Your task to perform on an android device: turn off notifications settings in the gmail app Image 0: 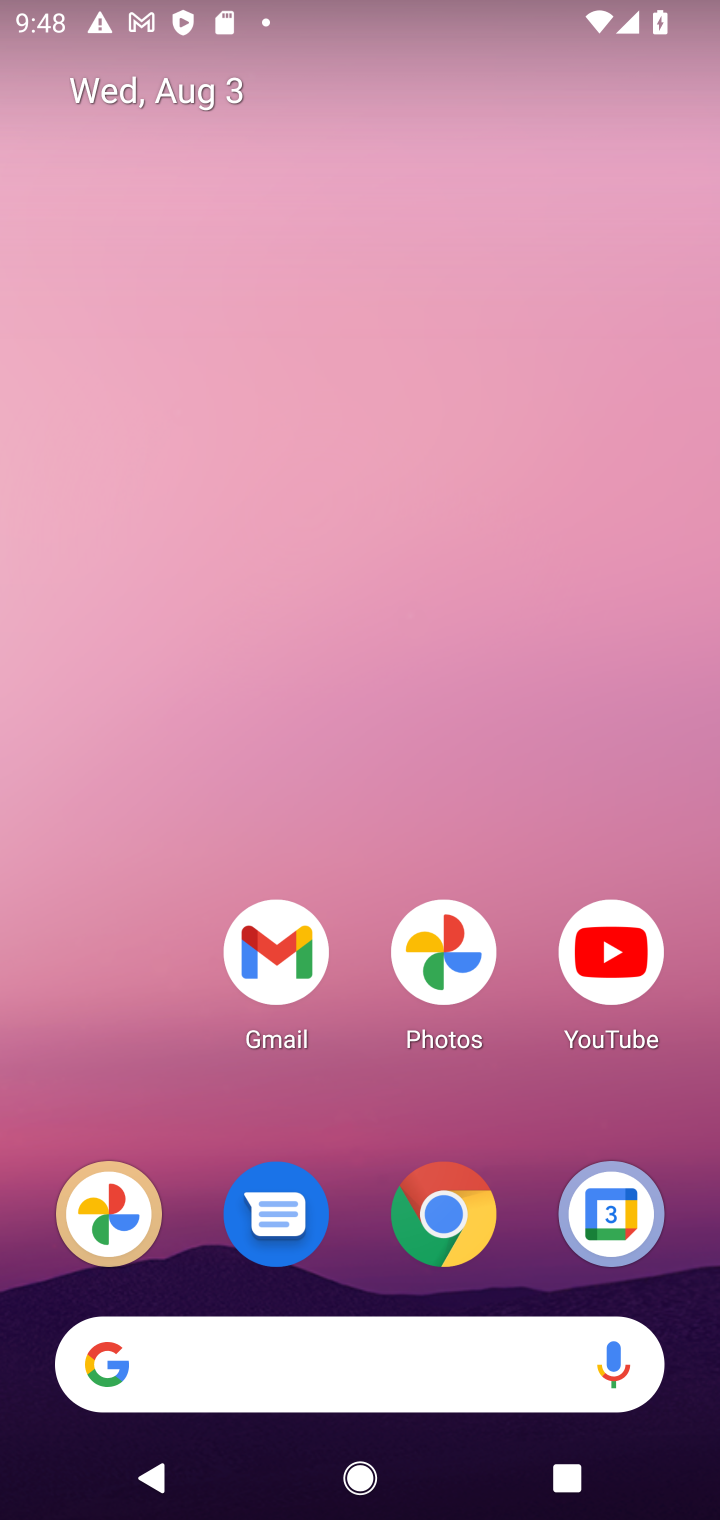
Step 0: press home button
Your task to perform on an android device: turn off notifications settings in the gmail app Image 1: 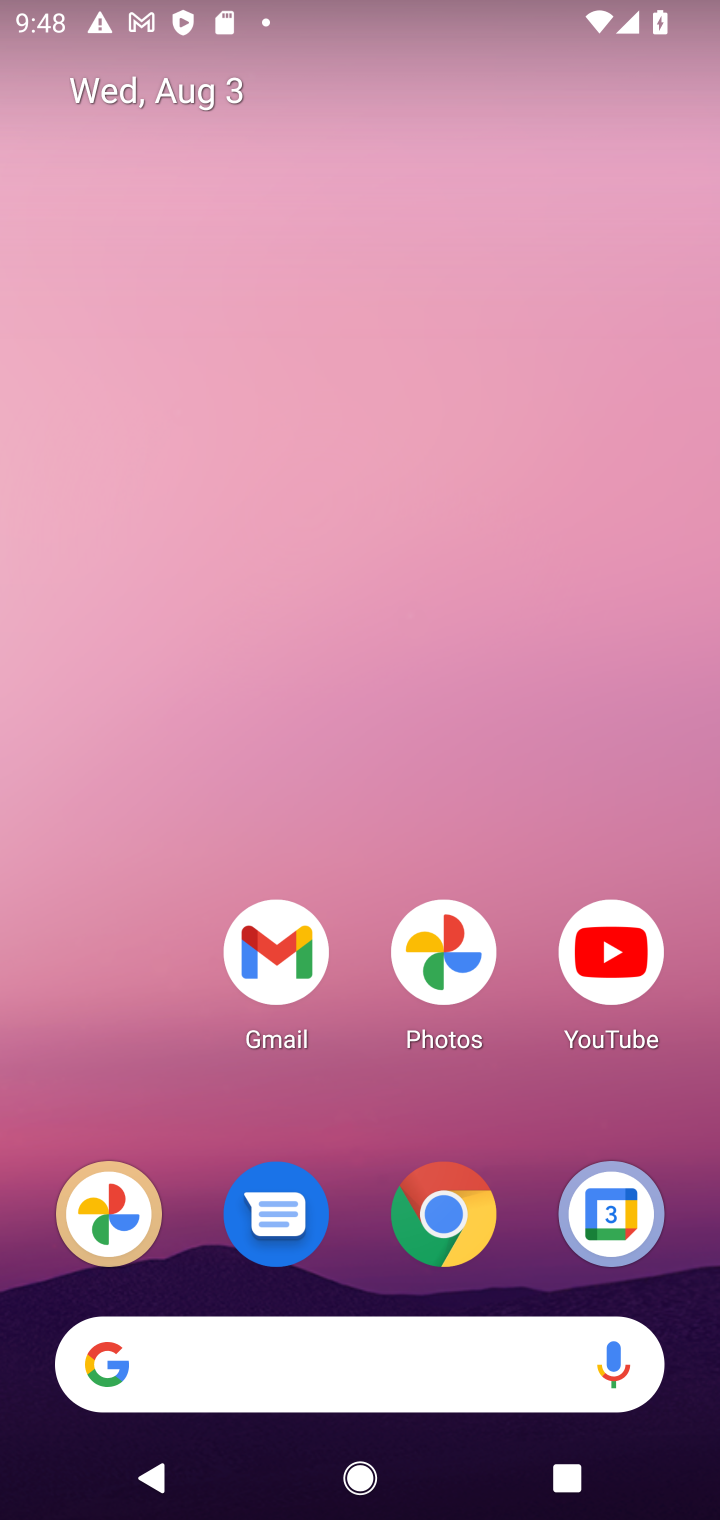
Step 1: drag from (295, 1228) to (337, 84)
Your task to perform on an android device: turn off notifications settings in the gmail app Image 2: 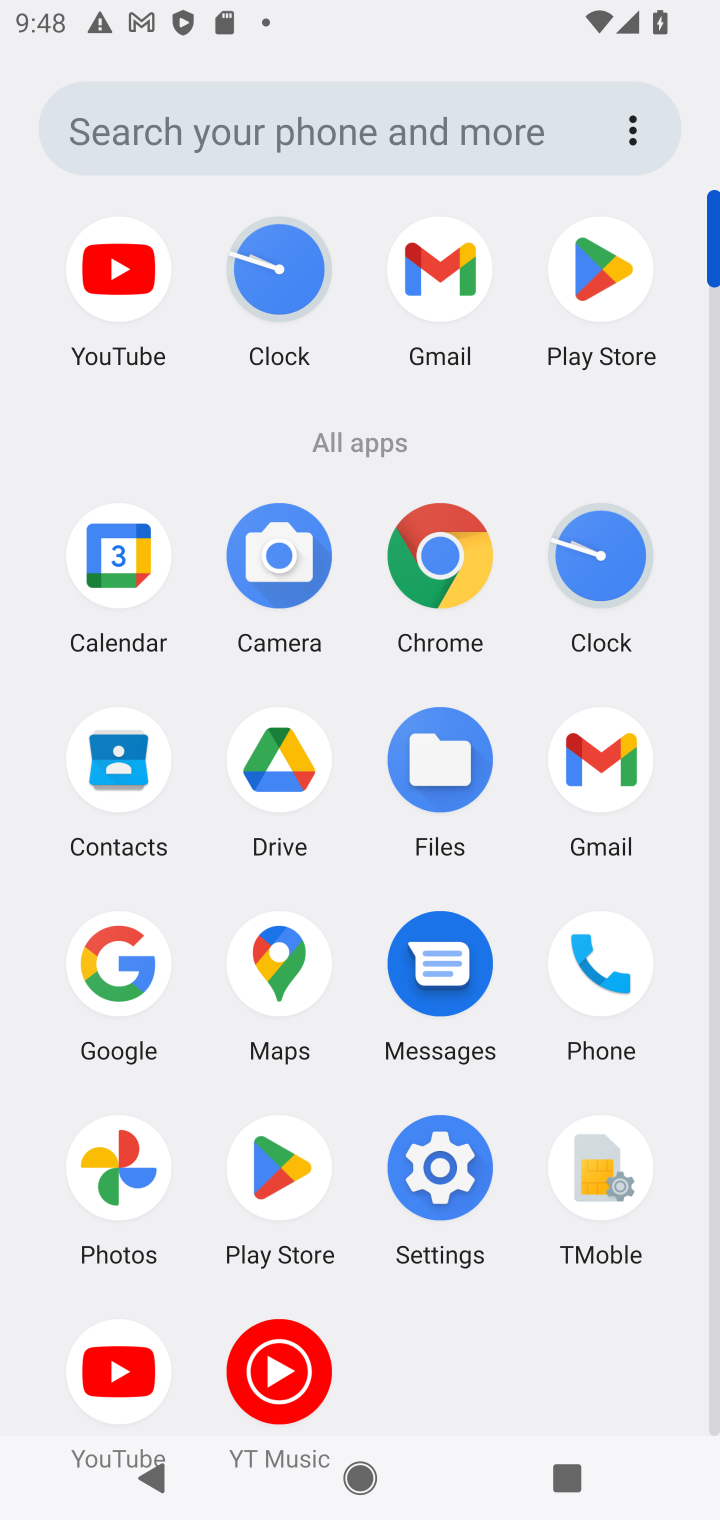
Step 2: click (605, 751)
Your task to perform on an android device: turn off notifications settings in the gmail app Image 3: 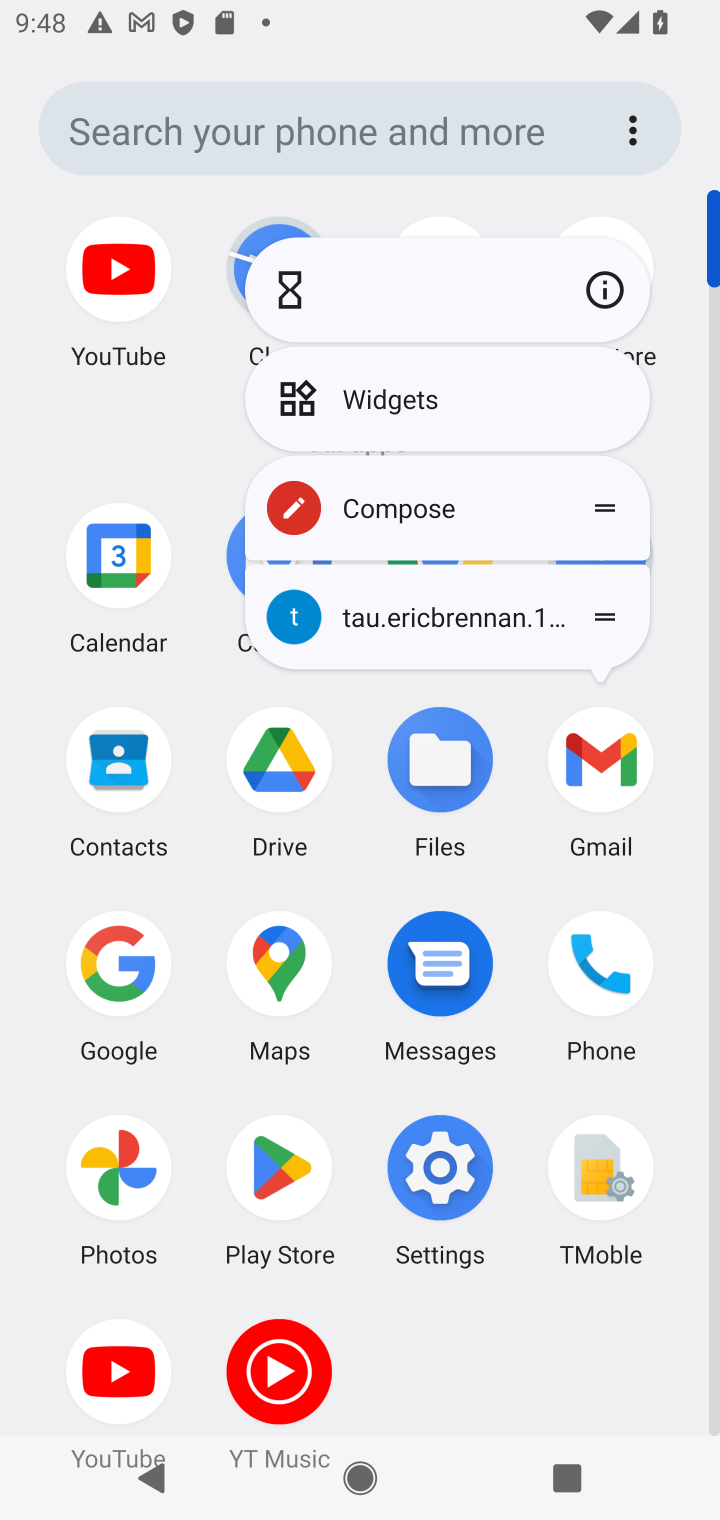
Step 3: click (583, 297)
Your task to perform on an android device: turn off notifications settings in the gmail app Image 4: 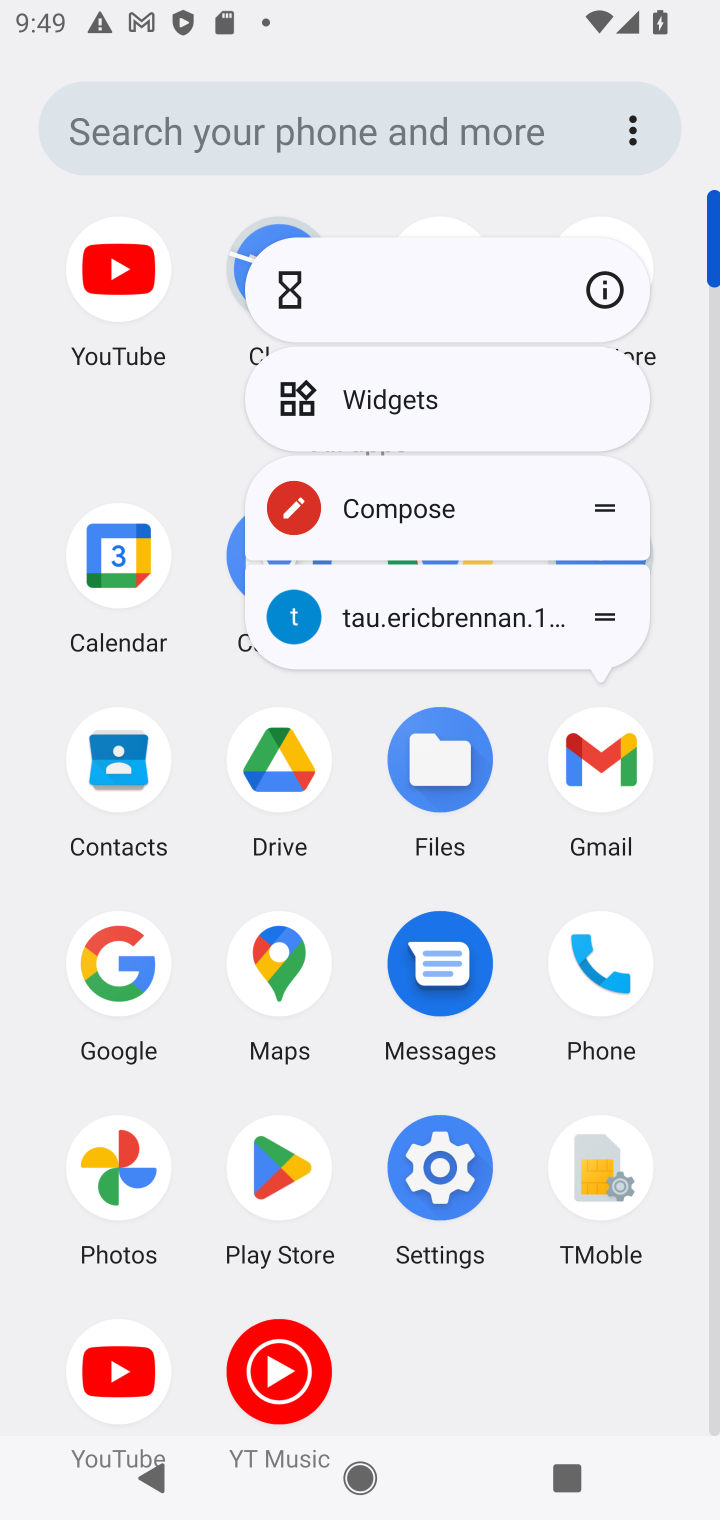
Step 4: click (583, 297)
Your task to perform on an android device: turn off notifications settings in the gmail app Image 5: 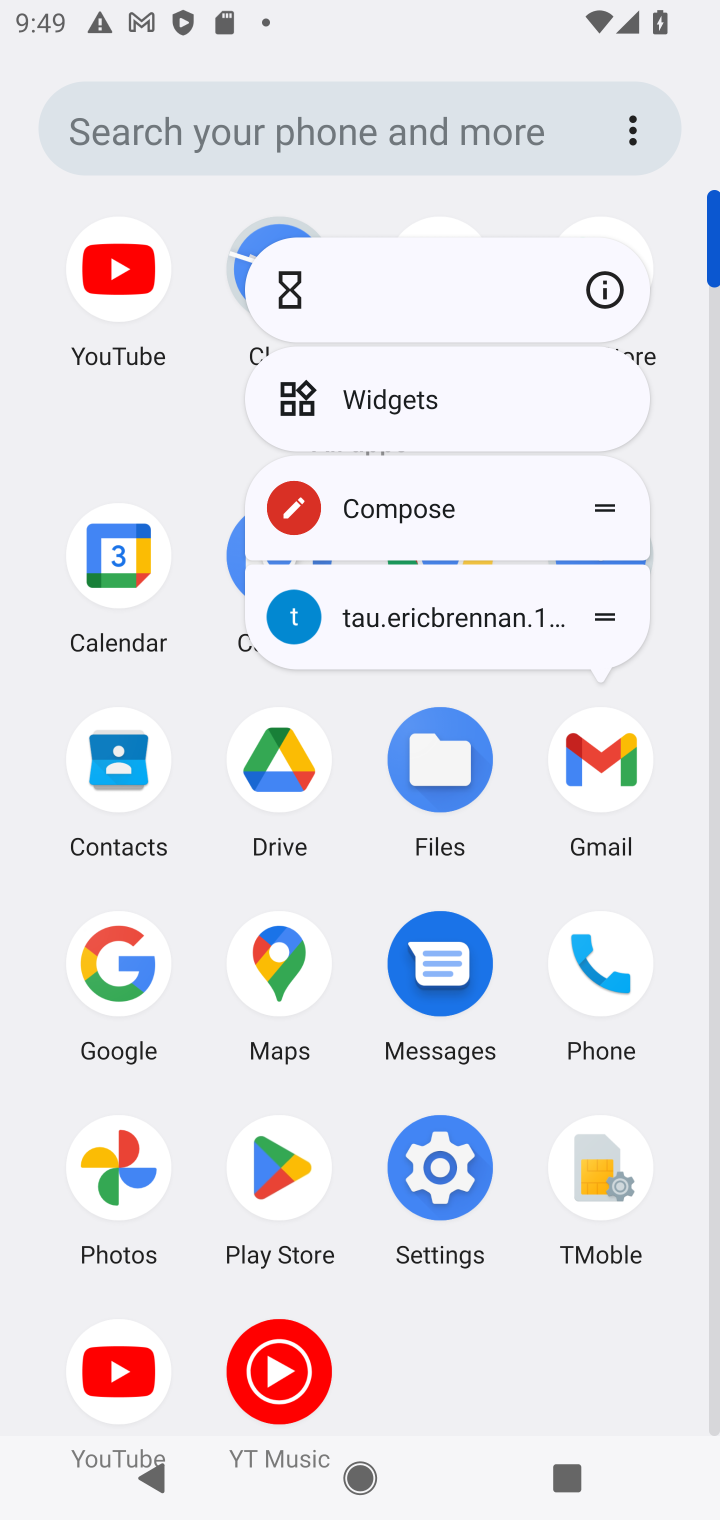
Step 5: click (583, 297)
Your task to perform on an android device: turn off notifications settings in the gmail app Image 6: 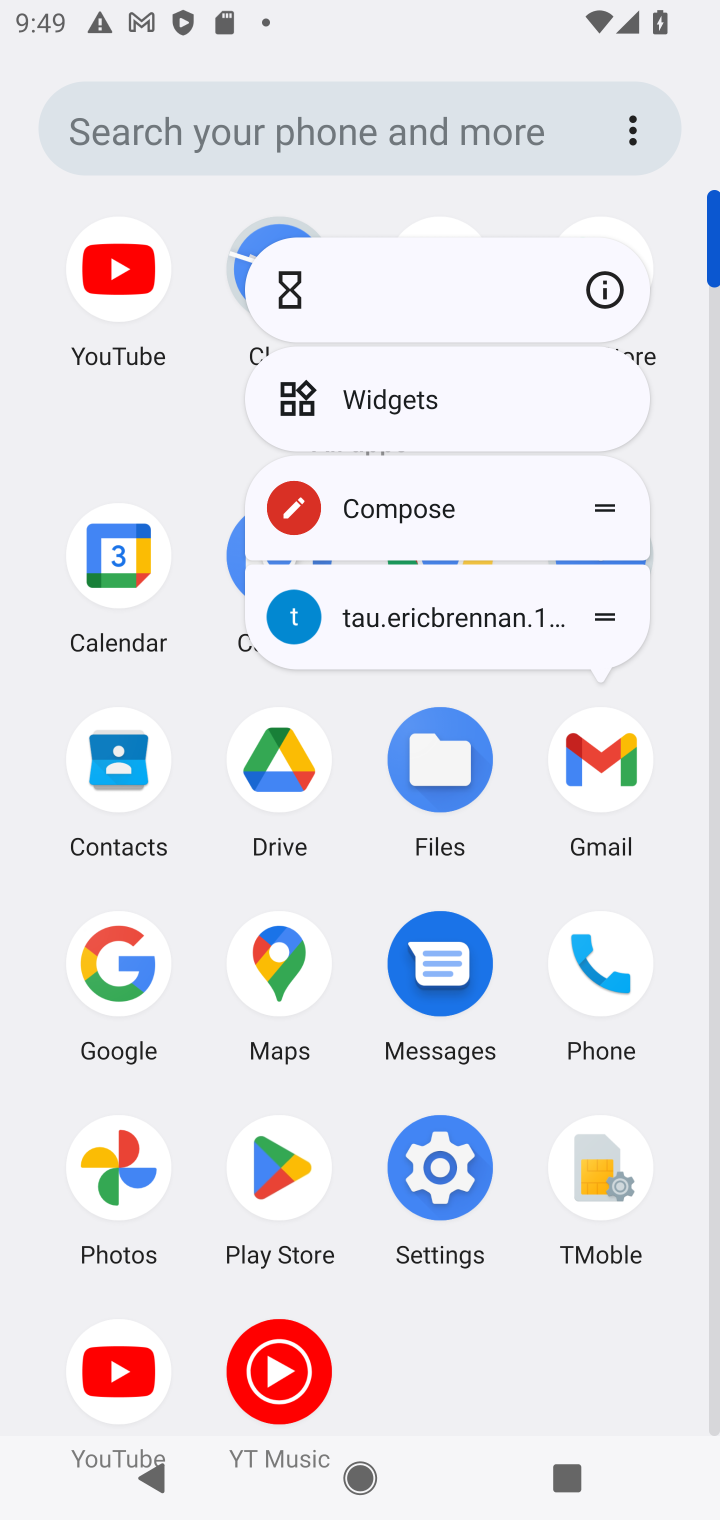
Step 6: click (653, 762)
Your task to perform on an android device: turn off notifications settings in the gmail app Image 7: 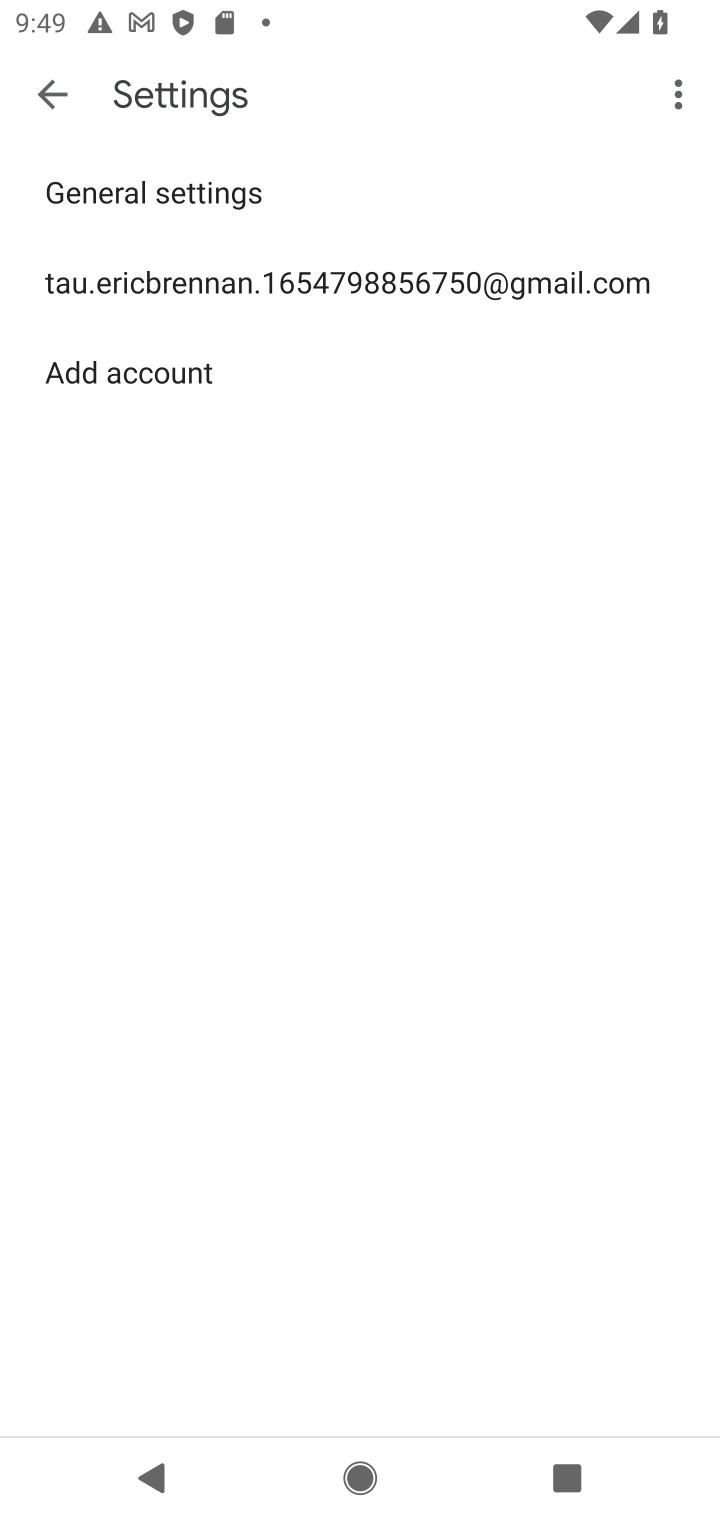
Step 7: click (602, 766)
Your task to perform on an android device: turn off notifications settings in the gmail app Image 8: 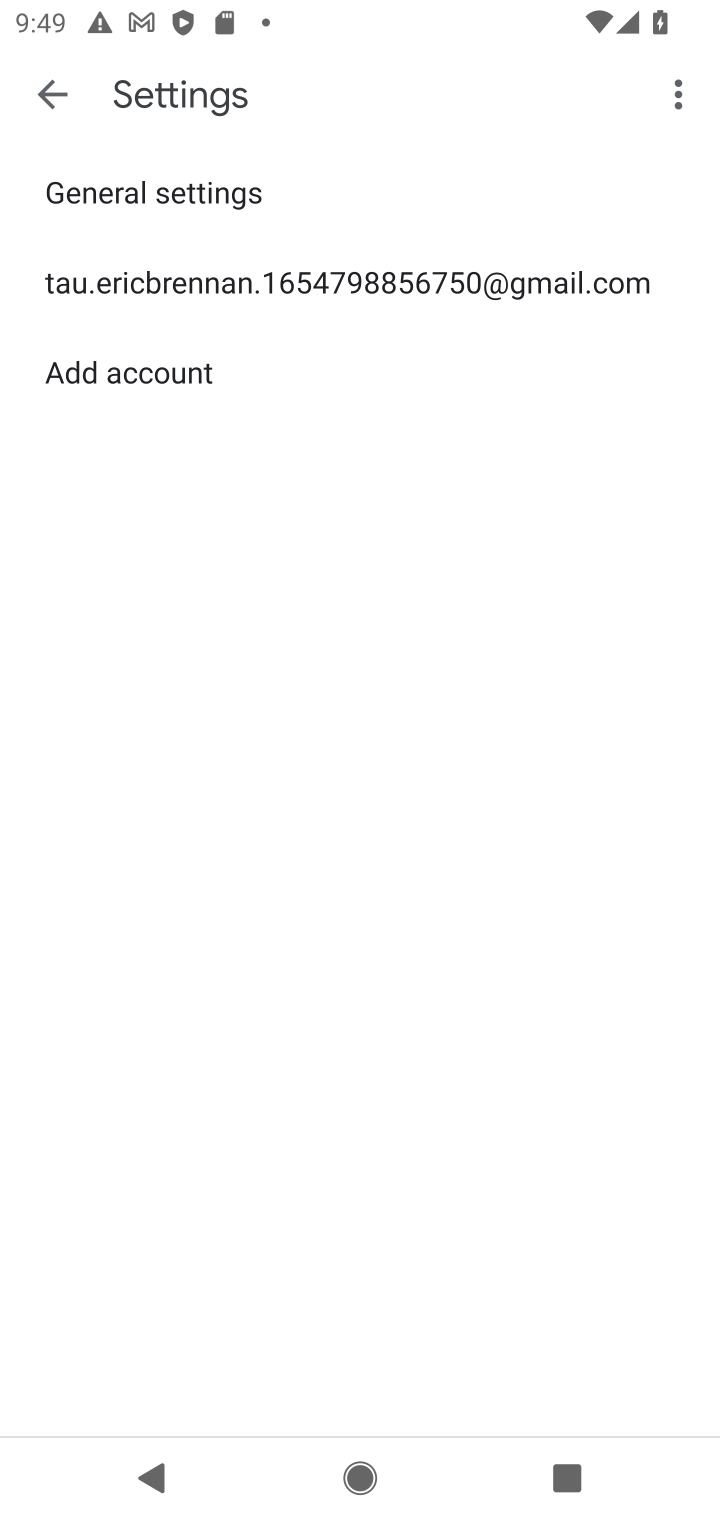
Step 8: press home button
Your task to perform on an android device: turn off notifications settings in the gmail app Image 9: 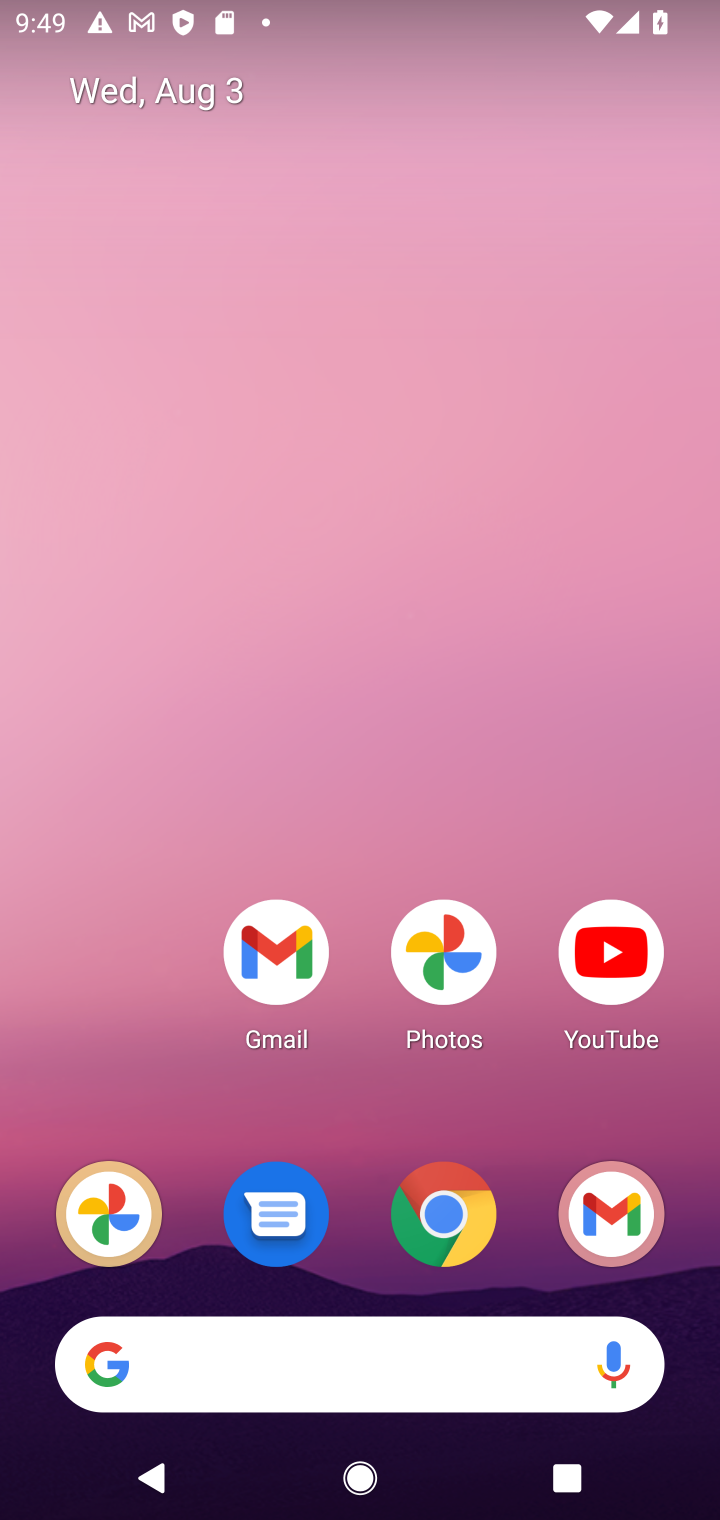
Step 9: click (268, 944)
Your task to perform on an android device: turn off notifications settings in the gmail app Image 10: 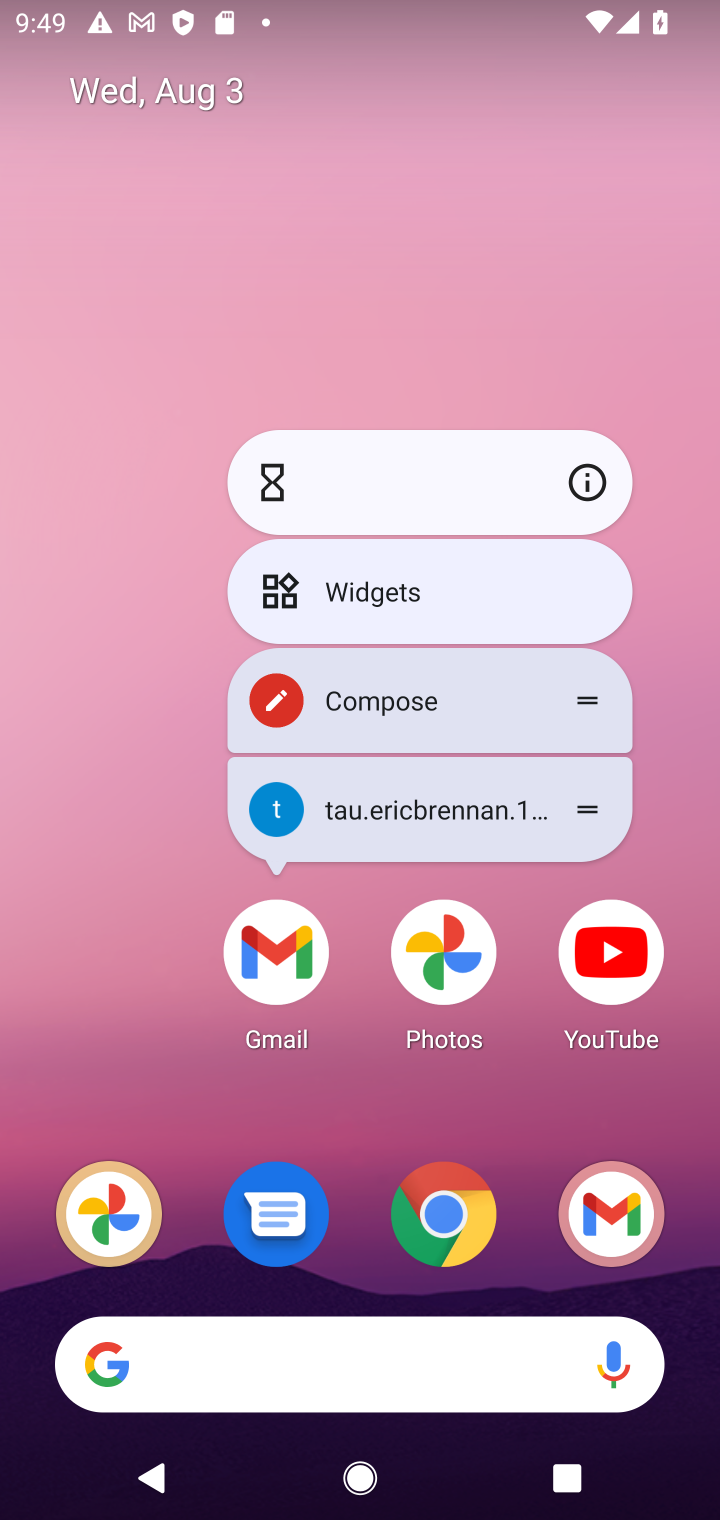
Step 10: click (594, 469)
Your task to perform on an android device: turn off notifications settings in the gmail app Image 11: 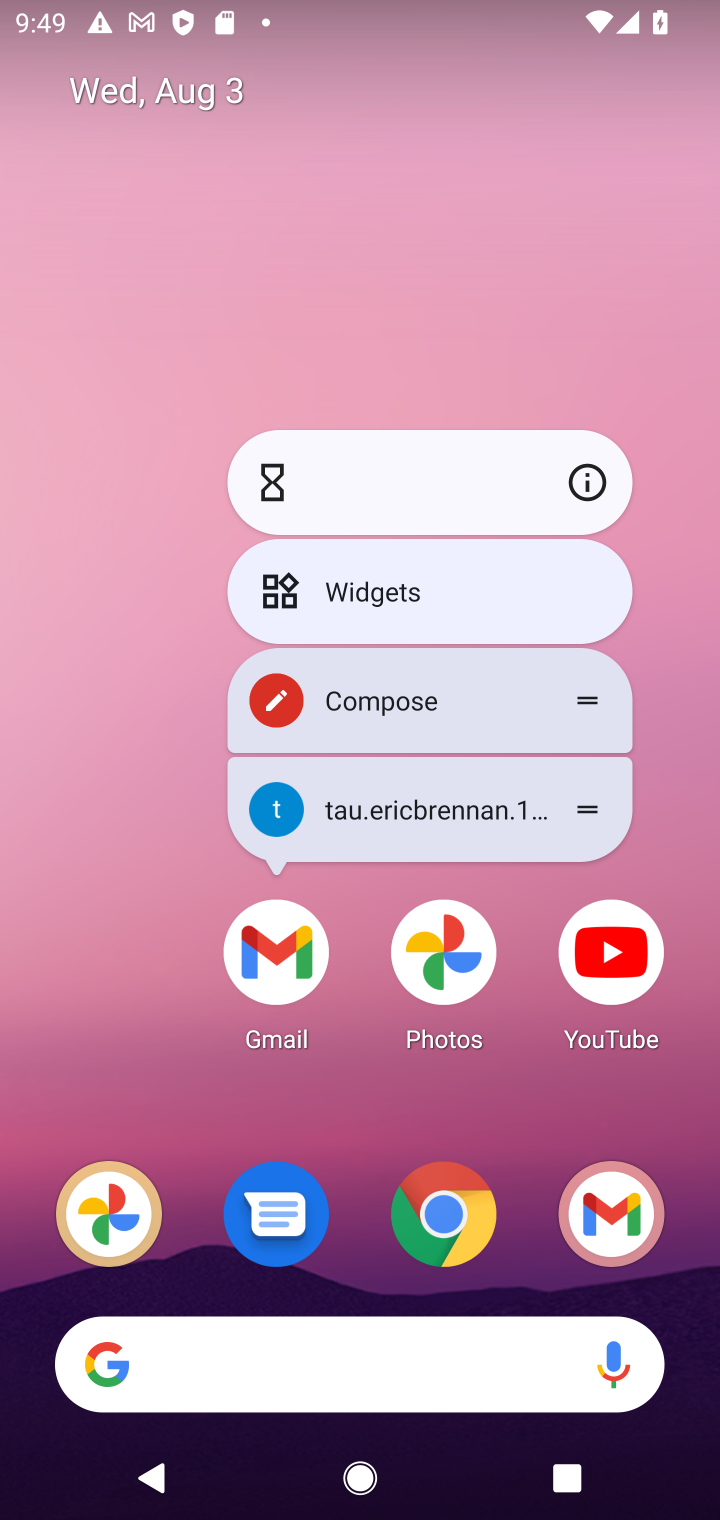
Step 11: click (594, 469)
Your task to perform on an android device: turn off notifications settings in the gmail app Image 12: 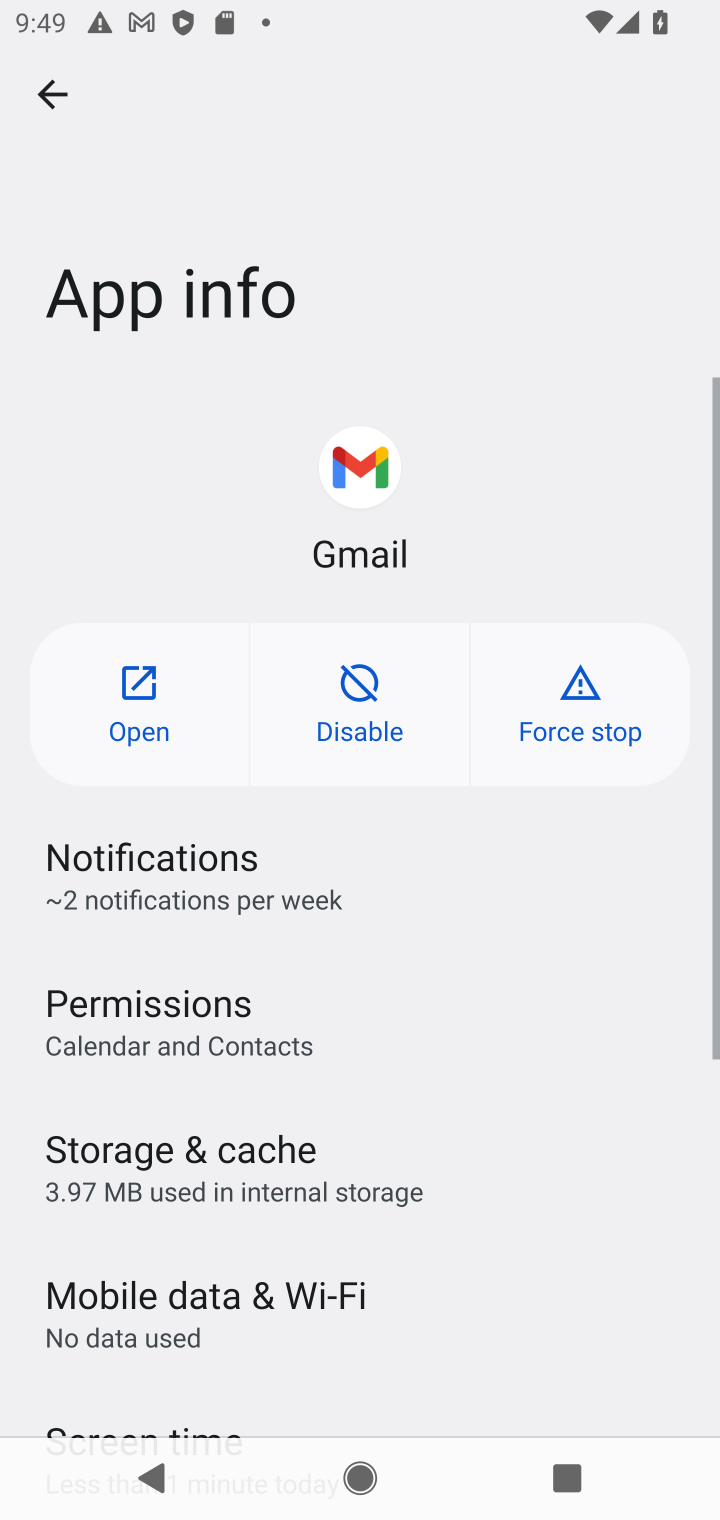
Step 12: click (140, 845)
Your task to perform on an android device: turn off notifications settings in the gmail app Image 13: 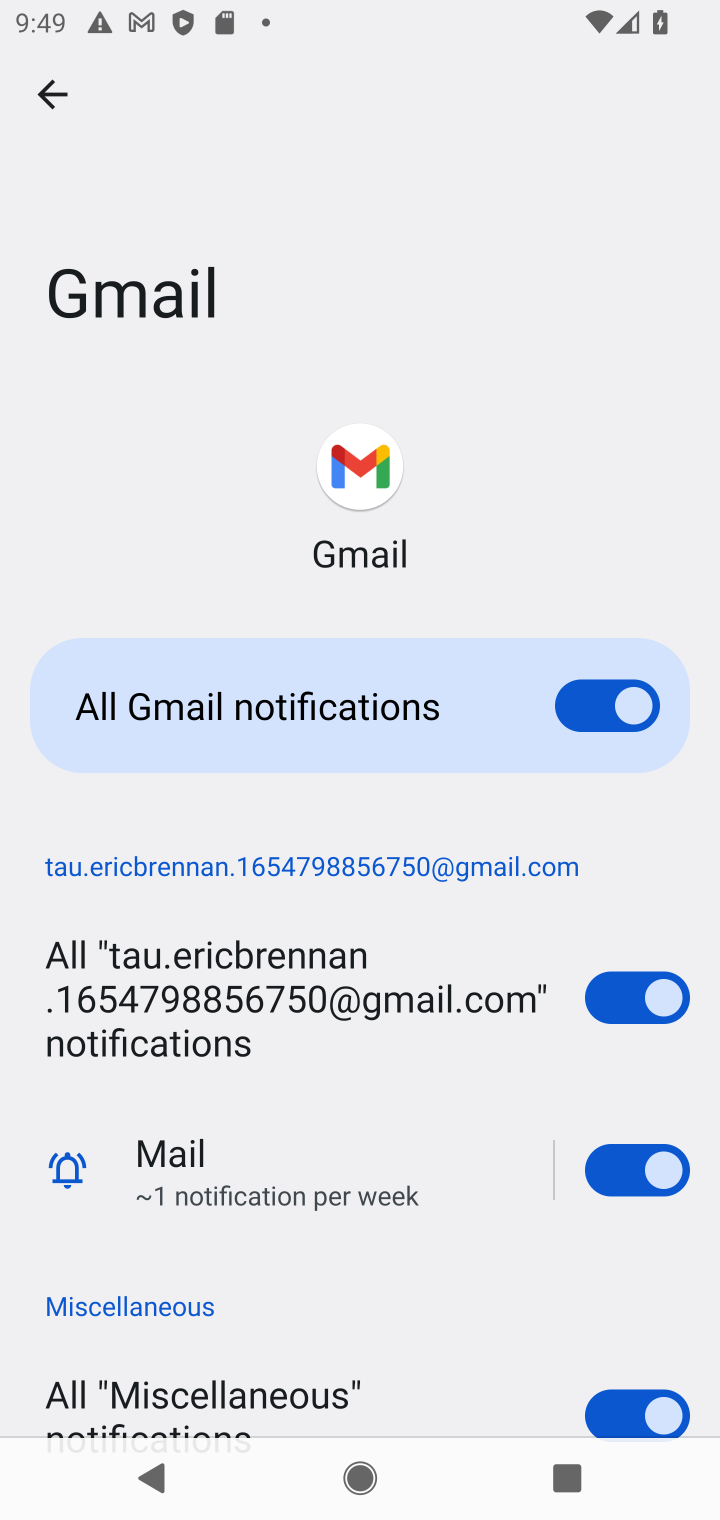
Step 13: click (233, 702)
Your task to perform on an android device: turn off notifications settings in the gmail app Image 14: 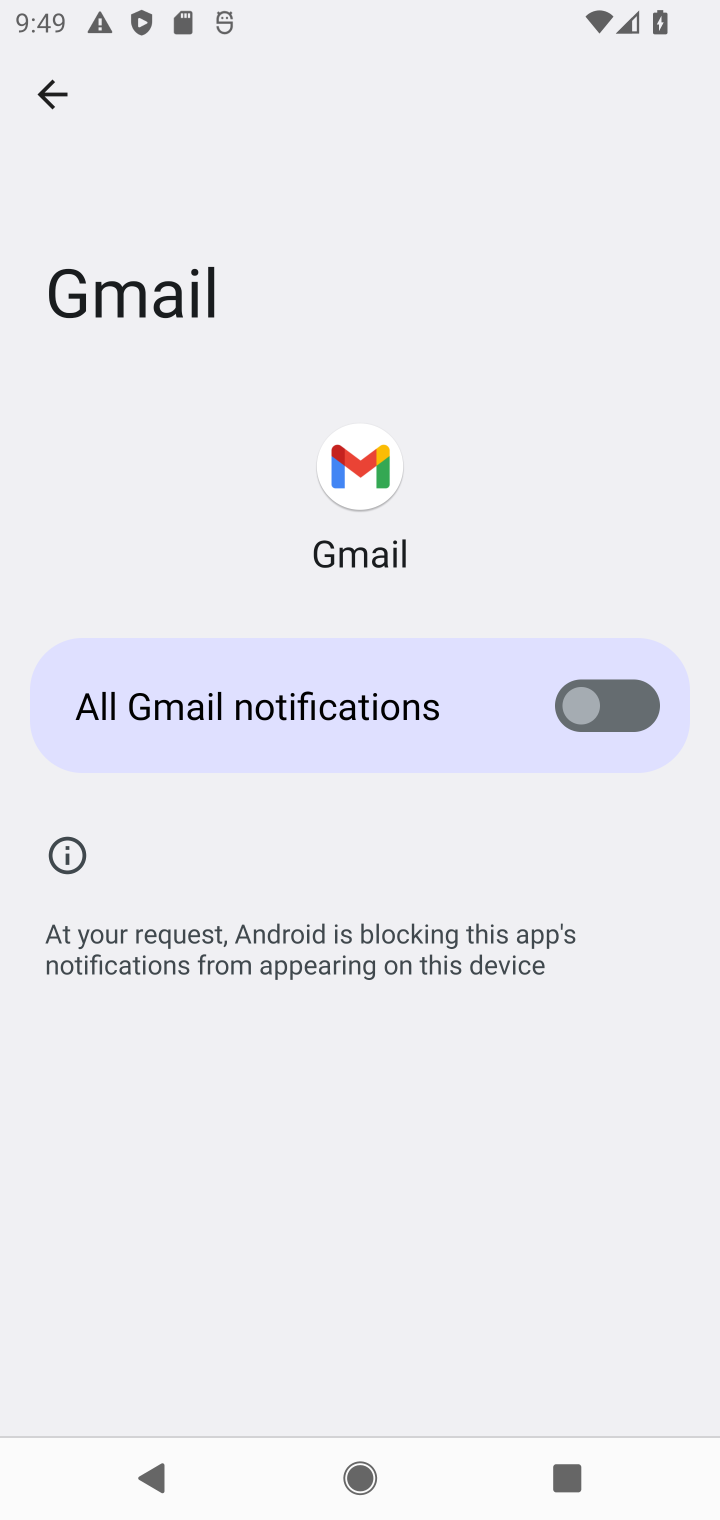
Step 14: task complete